Your task to perform on an android device: check android version Image 0: 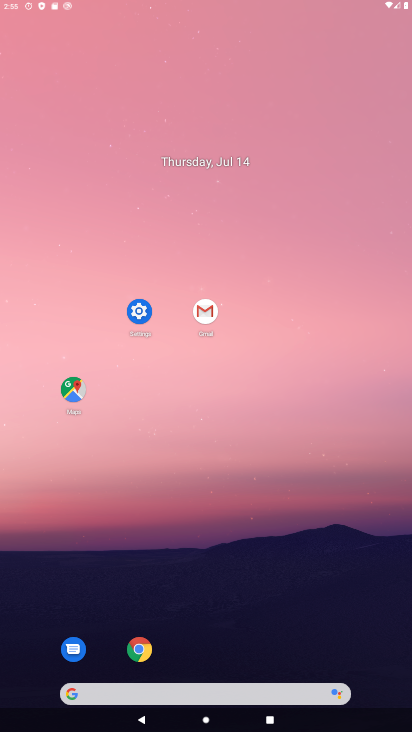
Step 0: click (136, 653)
Your task to perform on an android device: check android version Image 1: 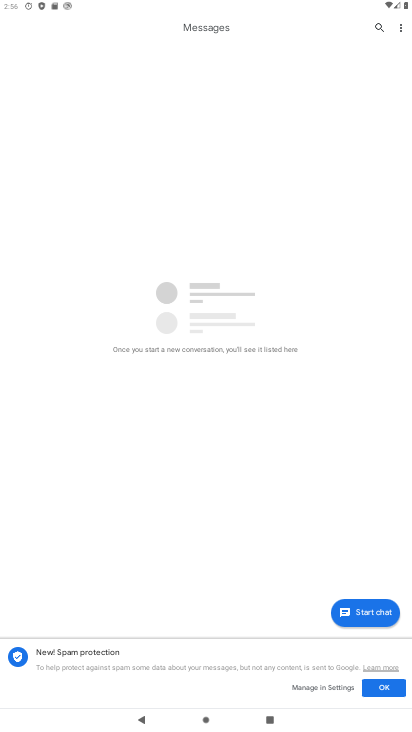
Step 1: press home button
Your task to perform on an android device: check android version Image 2: 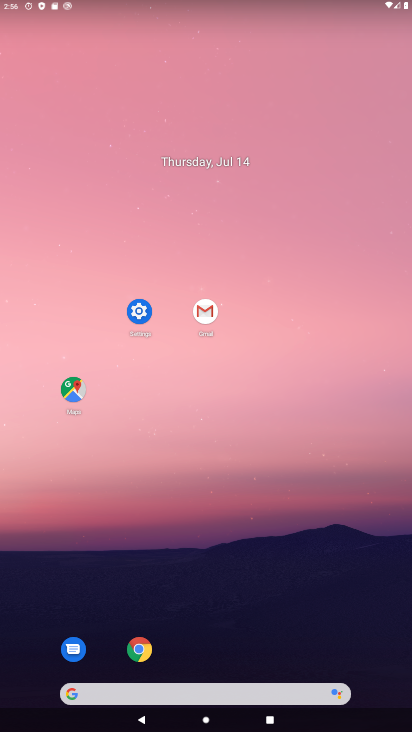
Step 2: click (142, 322)
Your task to perform on an android device: check android version Image 3: 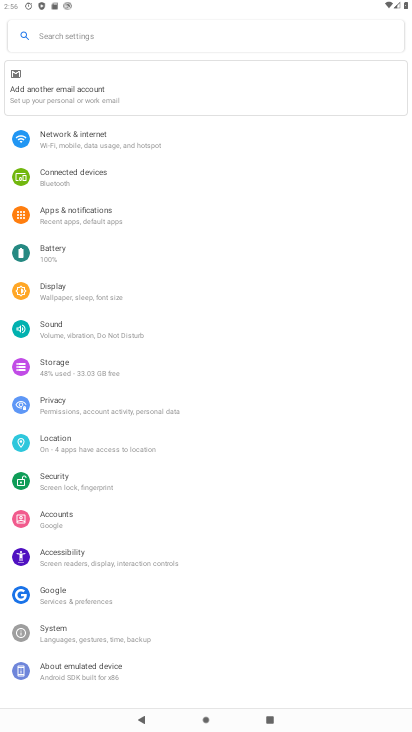
Step 3: click (101, 683)
Your task to perform on an android device: check android version Image 4: 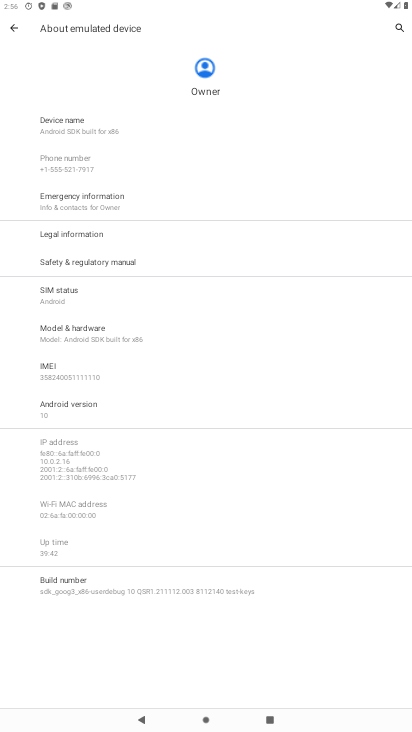
Step 4: click (109, 411)
Your task to perform on an android device: check android version Image 5: 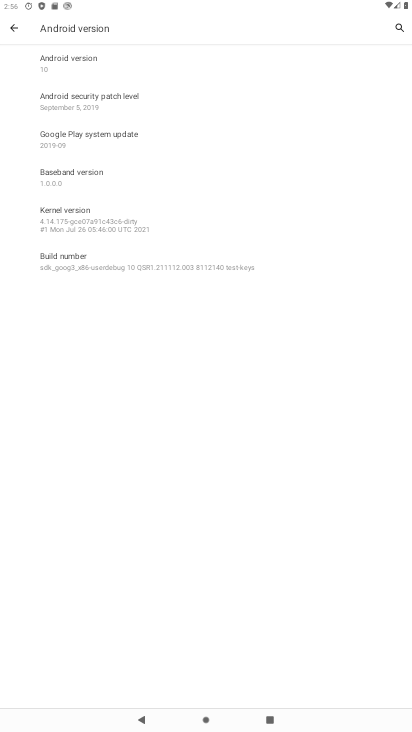
Step 5: task complete